Your task to perform on an android device: Open accessibility settings Image 0: 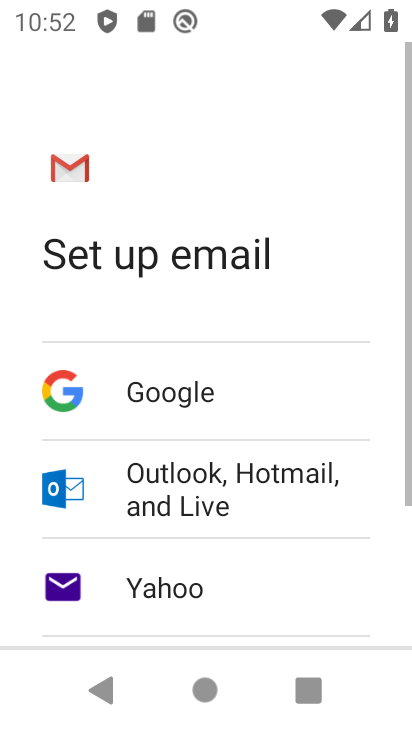
Step 0: press home button
Your task to perform on an android device: Open accessibility settings Image 1: 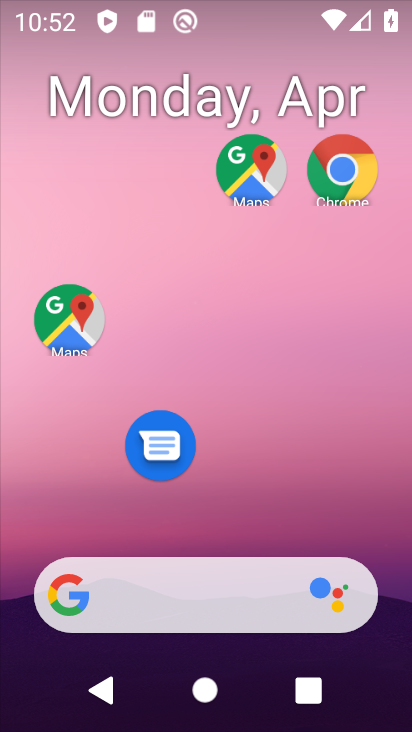
Step 1: drag from (275, 444) to (282, 0)
Your task to perform on an android device: Open accessibility settings Image 2: 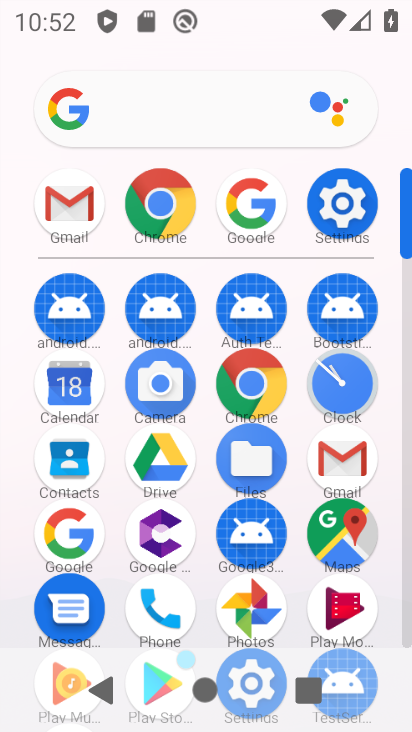
Step 2: click (335, 273)
Your task to perform on an android device: Open accessibility settings Image 3: 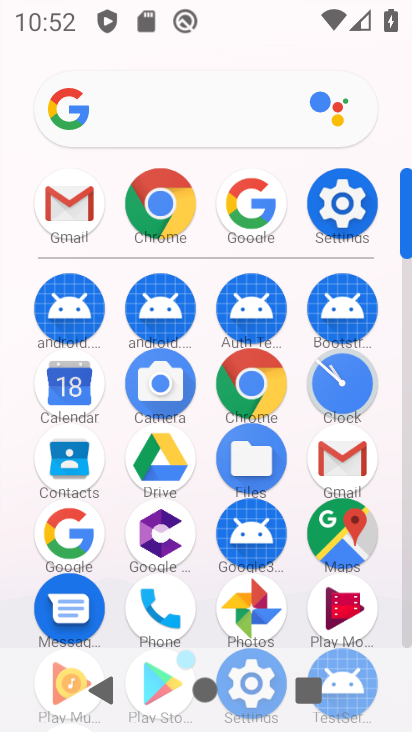
Step 3: click (349, 202)
Your task to perform on an android device: Open accessibility settings Image 4: 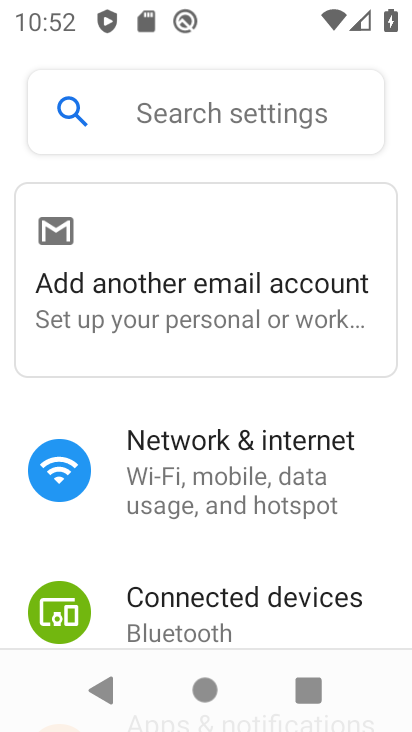
Step 4: drag from (271, 512) to (276, 87)
Your task to perform on an android device: Open accessibility settings Image 5: 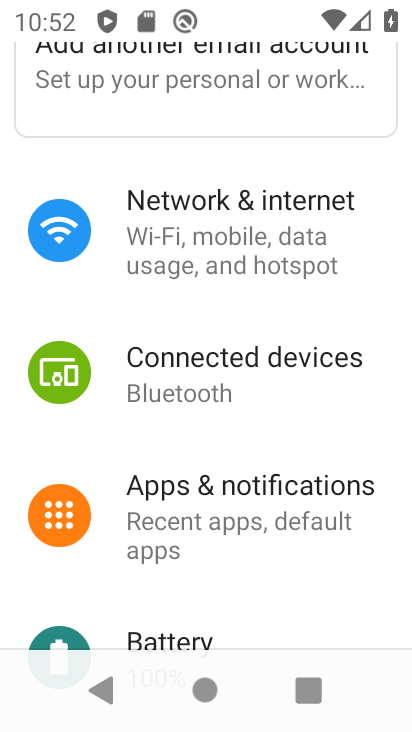
Step 5: drag from (278, 526) to (292, 203)
Your task to perform on an android device: Open accessibility settings Image 6: 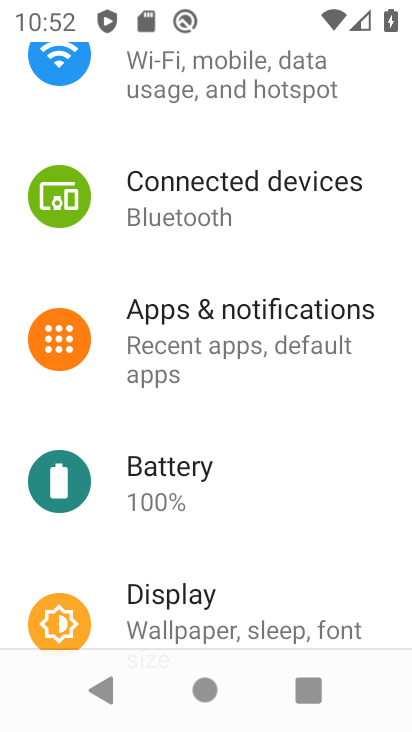
Step 6: drag from (284, 605) to (255, 132)
Your task to perform on an android device: Open accessibility settings Image 7: 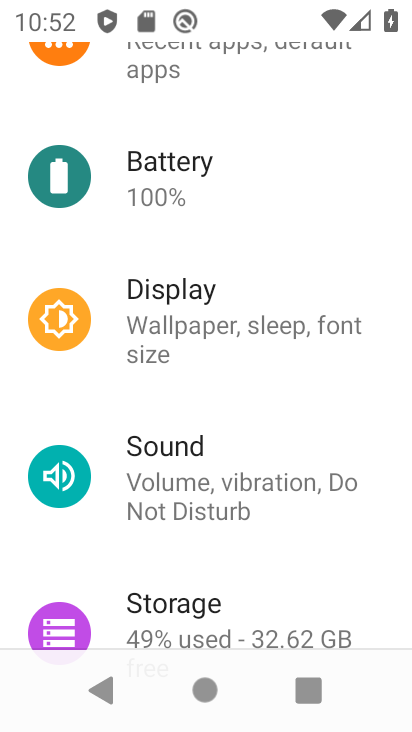
Step 7: drag from (294, 577) to (265, 94)
Your task to perform on an android device: Open accessibility settings Image 8: 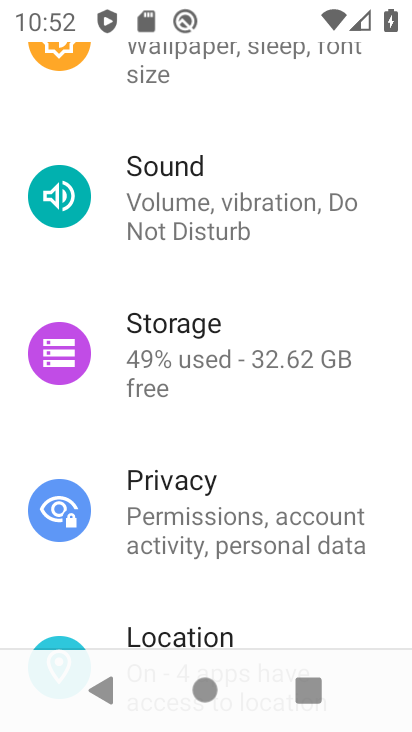
Step 8: drag from (292, 466) to (282, 96)
Your task to perform on an android device: Open accessibility settings Image 9: 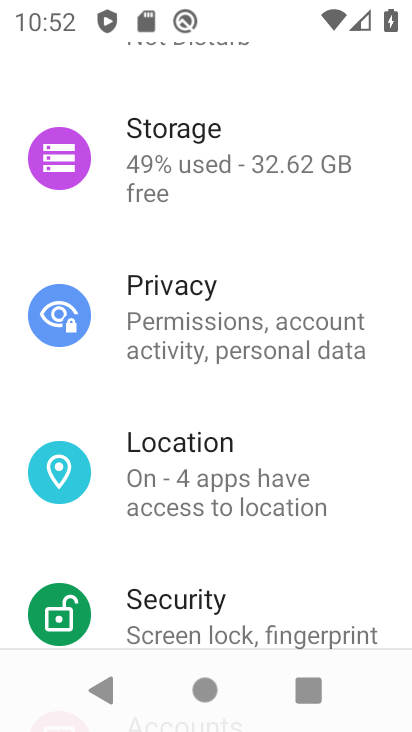
Step 9: drag from (315, 481) to (301, 162)
Your task to perform on an android device: Open accessibility settings Image 10: 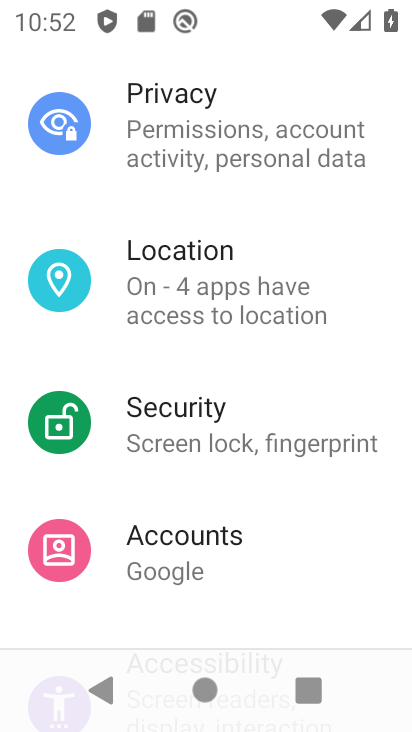
Step 10: drag from (284, 547) to (327, 164)
Your task to perform on an android device: Open accessibility settings Image 11: 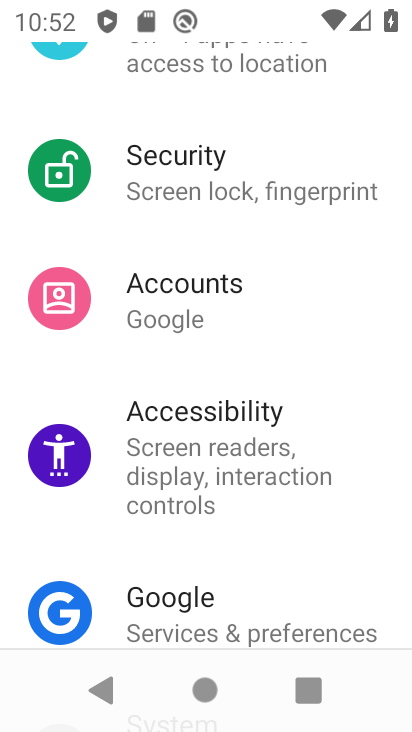
Step 11: click (194, 440)
Your task to perform on an android device: Open accessibility settings Image 12: 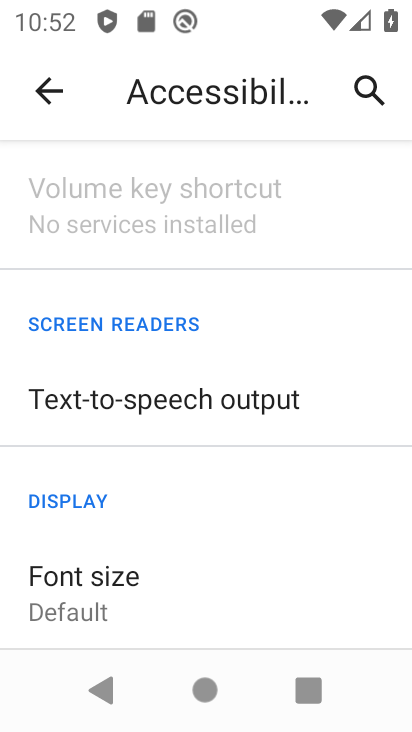
Step 12: task complete